Your task to perform on an android device: Search for "duracell triple a" on ebay.com, select the first entry, and add it to the cart. Image 0: 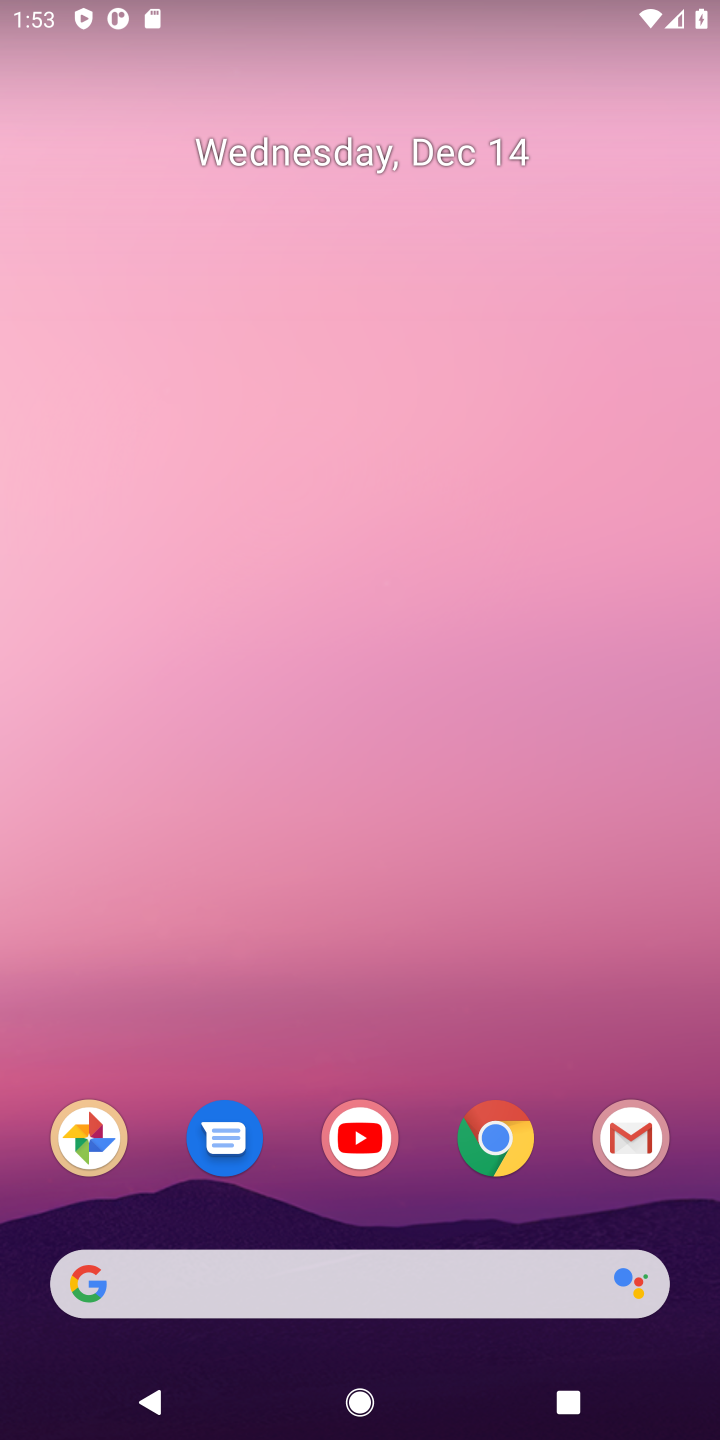
Step 0: click (481, 1134)
Your task to perform on an android device: Search for "duracell triple a" on ebay.com, select the first entry, and add it to the cart. Image 1: 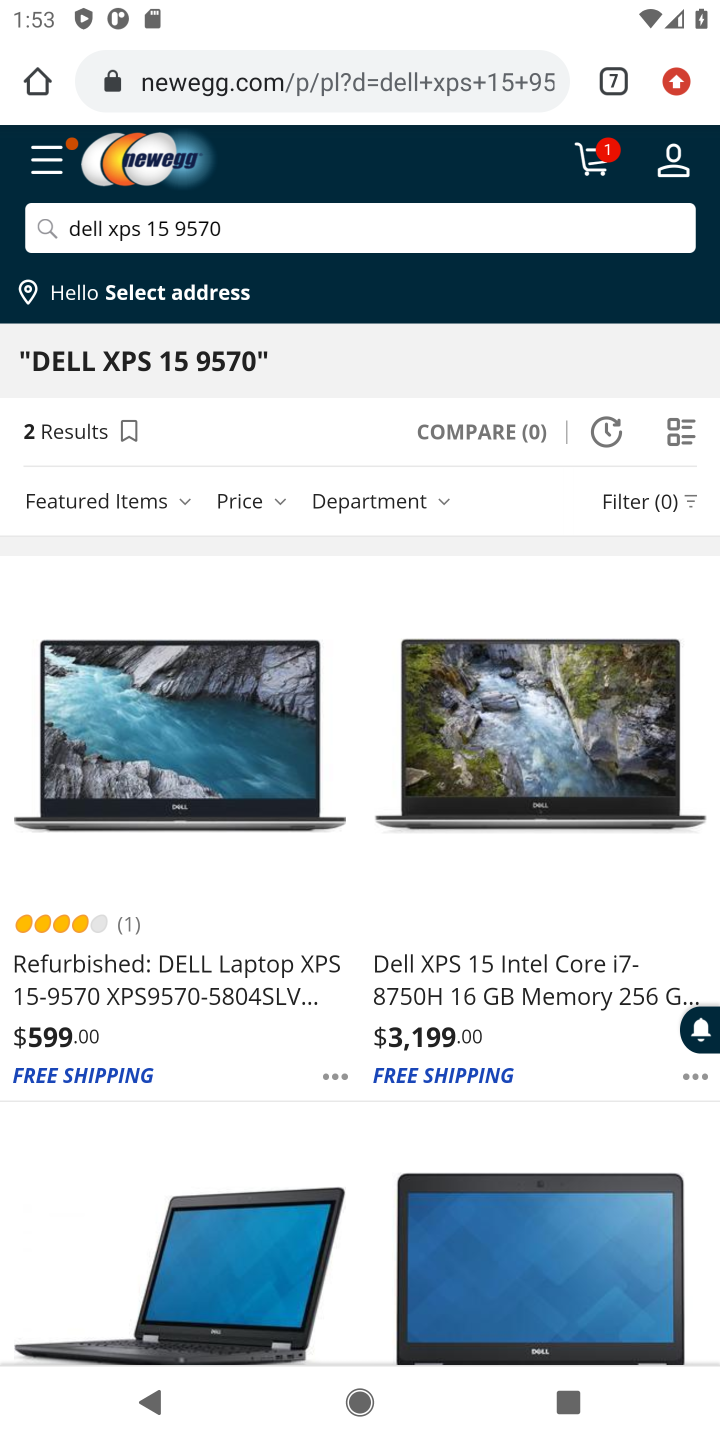
Step 1: click (600, 85)
Your task to perform on an android device: Search for "duracell triple a" on ebay.com, select the first entry, and add it to the cart. Image 2: 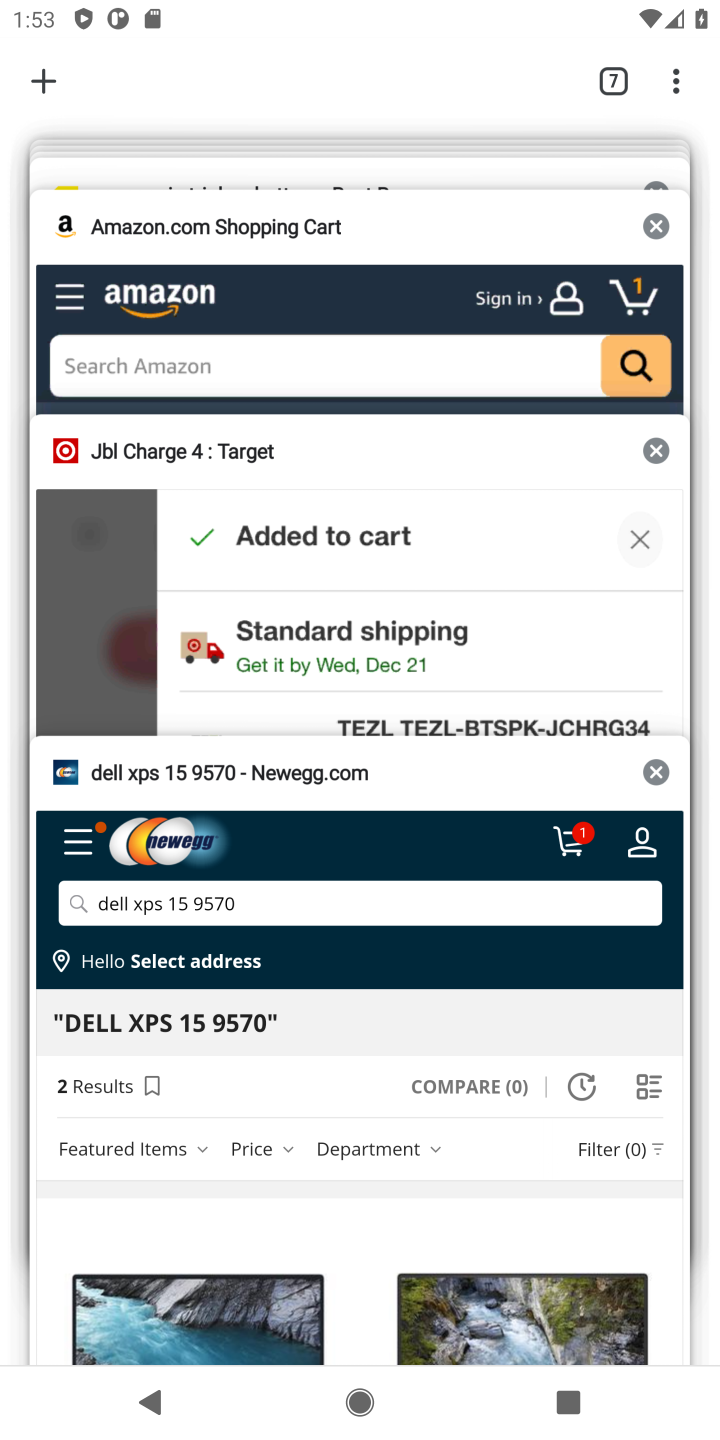
Step 2: drag from (313, 177) to (245, 588)
Your task to perform on an android device: Search for "duracell triple a" on ebay.com, select the first entry, and add it to the cart. Image 3: 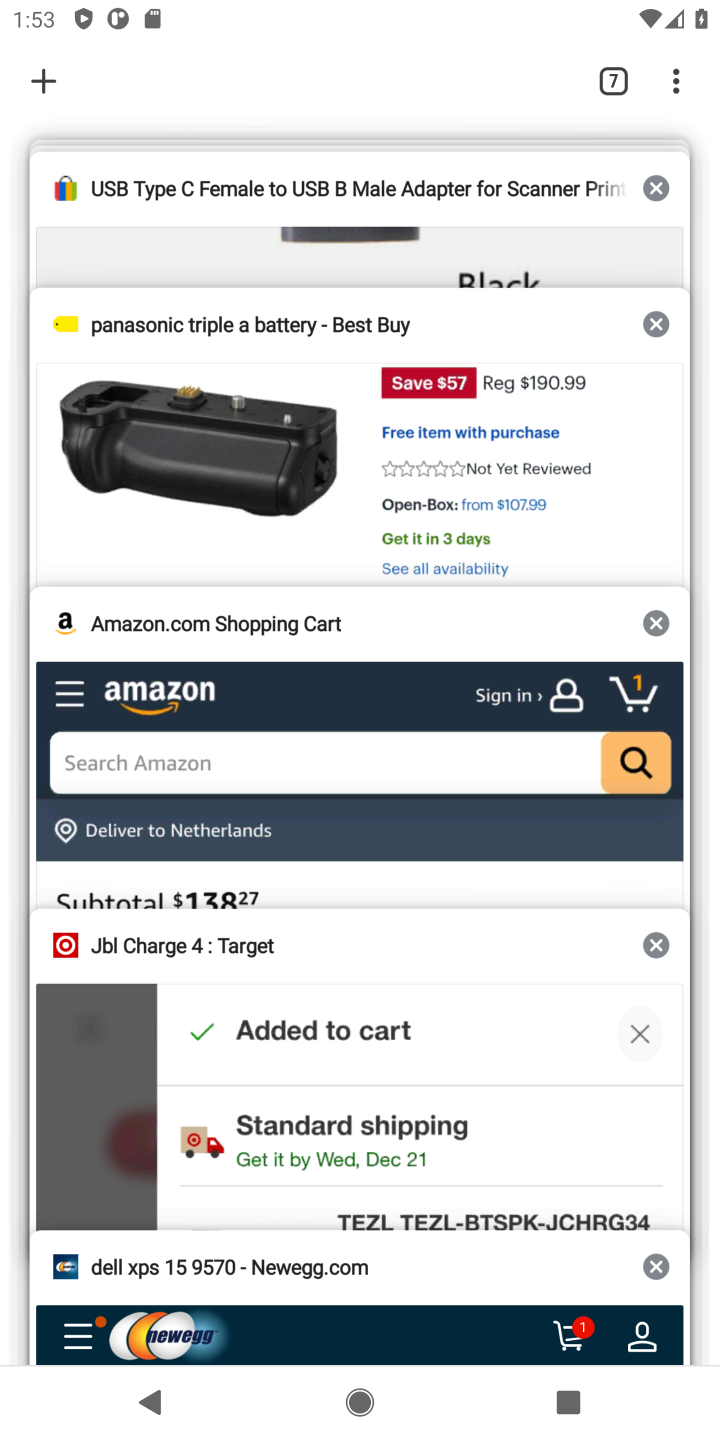
Step 3: click (230, 210)
Your task to perform on an android device: Search for "duracell triple a" on ebay.com, select the first entry, and add it to the cart. Image 4: 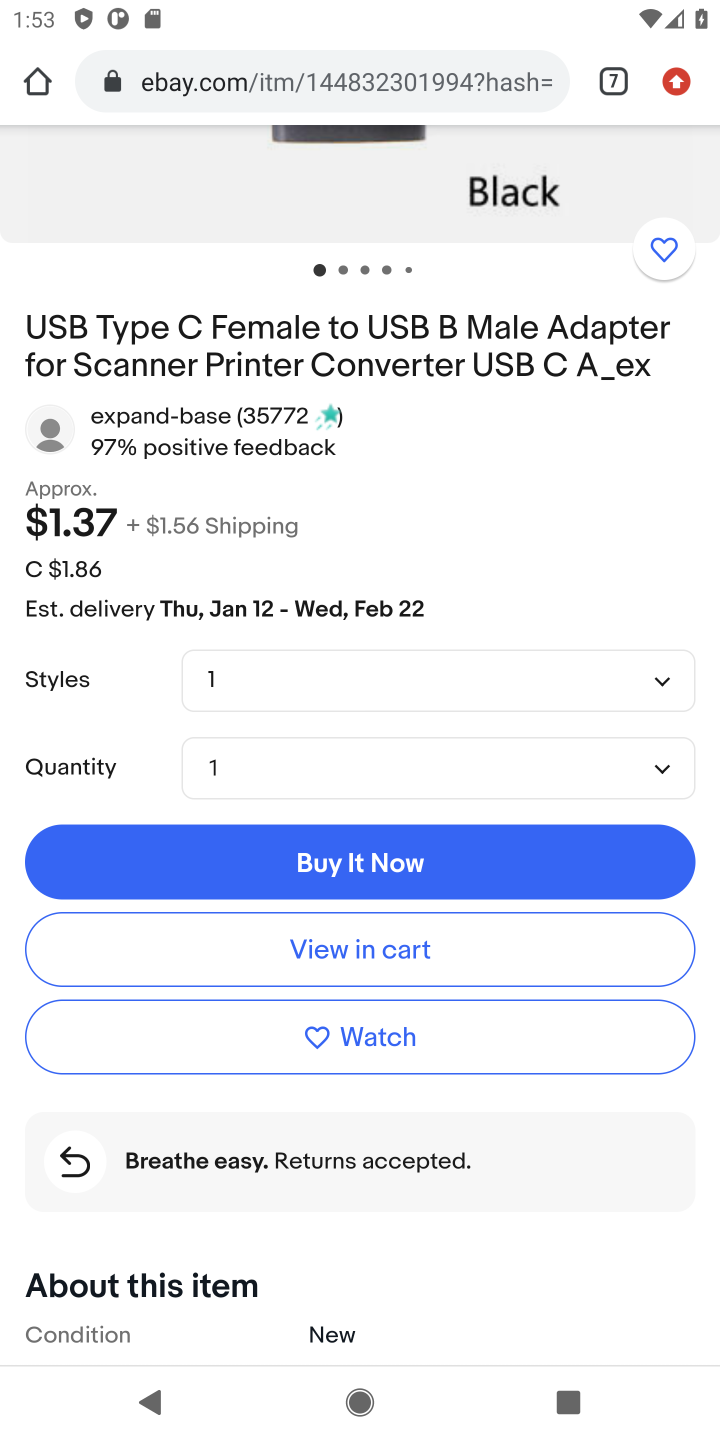
Step 4: drag from (509, 382) to (441, 1226)
Your task to perform on an android device: Search for "duracell triple a" on ebay.com, select the first entry, and add it to the cart. Image 5: 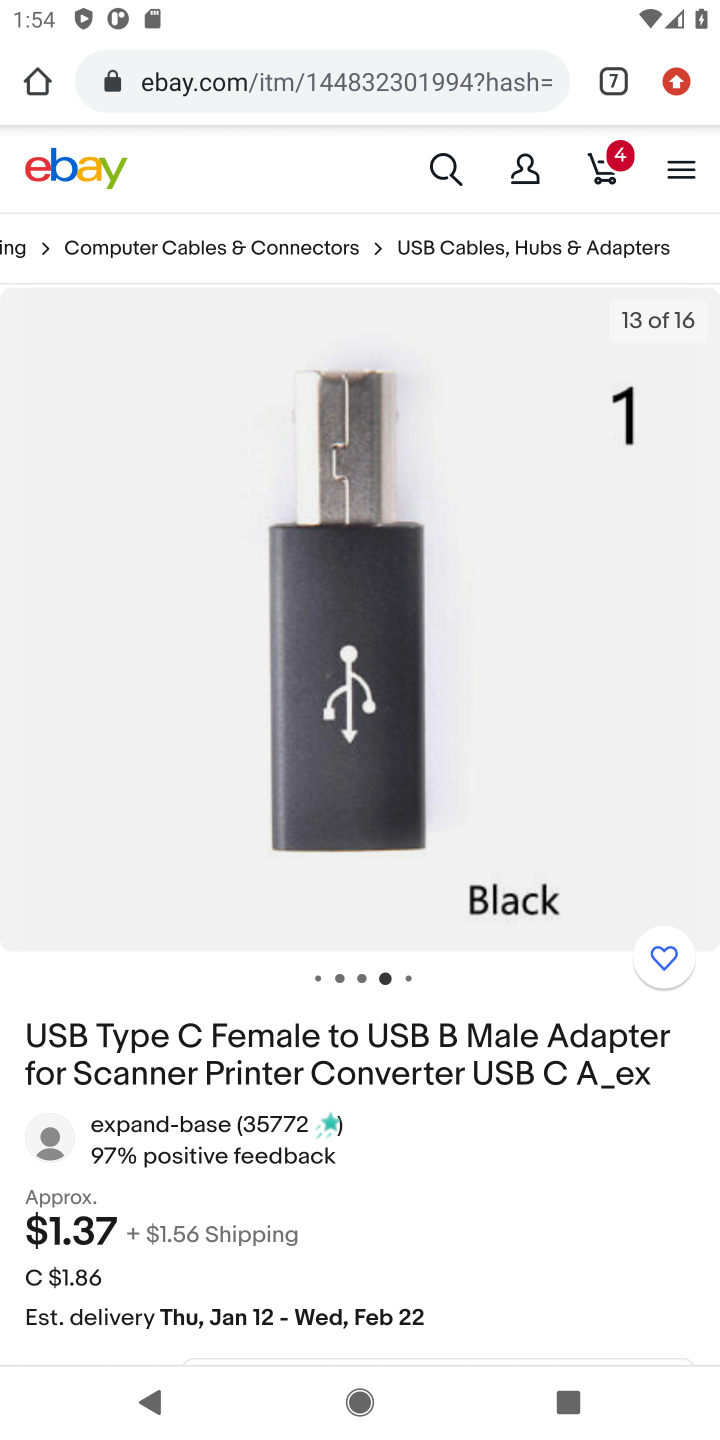
Step 5: drag from (507, 207) to (490, 654)
Your task to perform on an android device: Search for "duracell triple a" on ebay.com, select the first entry, and add it to the cart. Image 6: 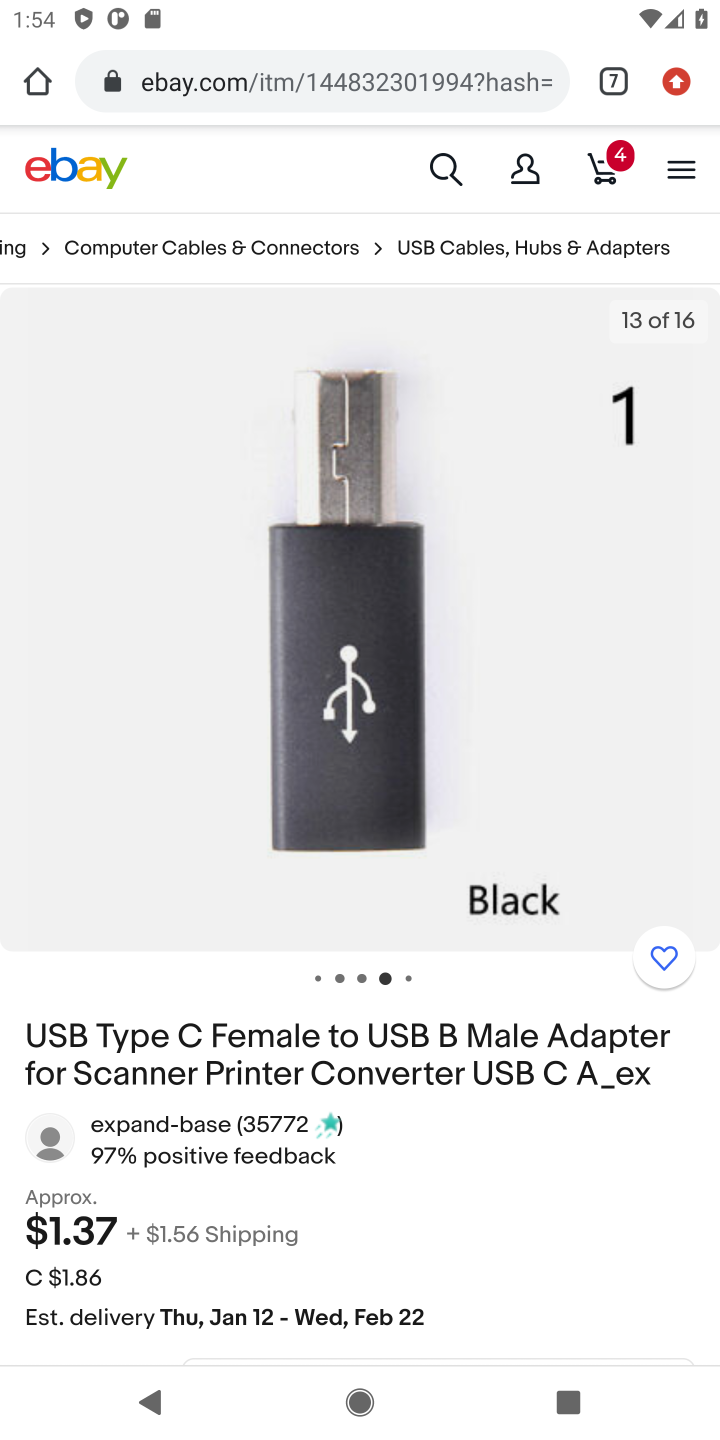
Step 6: click (448, 160)
Your task to perform on an android device: Search for "duracell triple a" on ebay.com, select the first entry, and add it to the cart. Image 7: 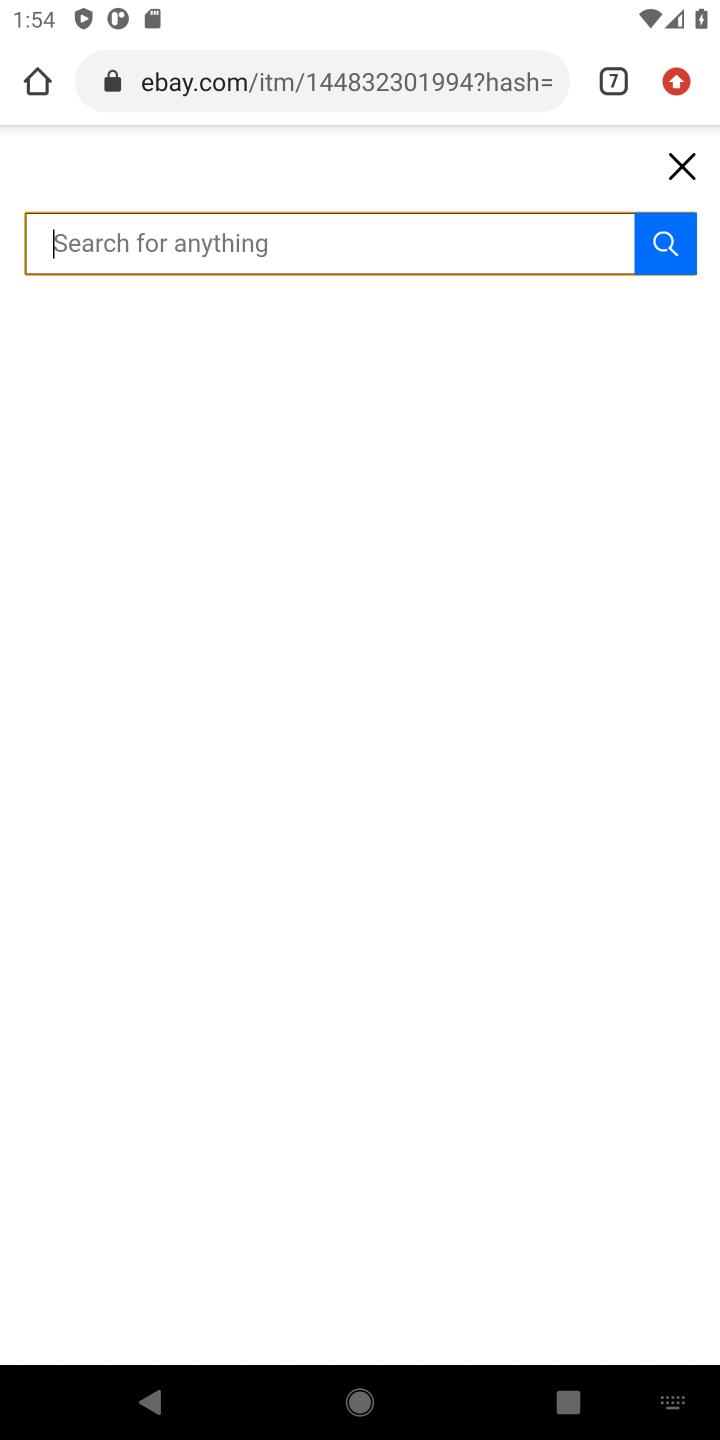
Step 7: type "duracell triple a"
Your task to perform on an android device: Search for "duracell triple a" on ebay.com, select the first entry, and add it to the cart. Image 8: 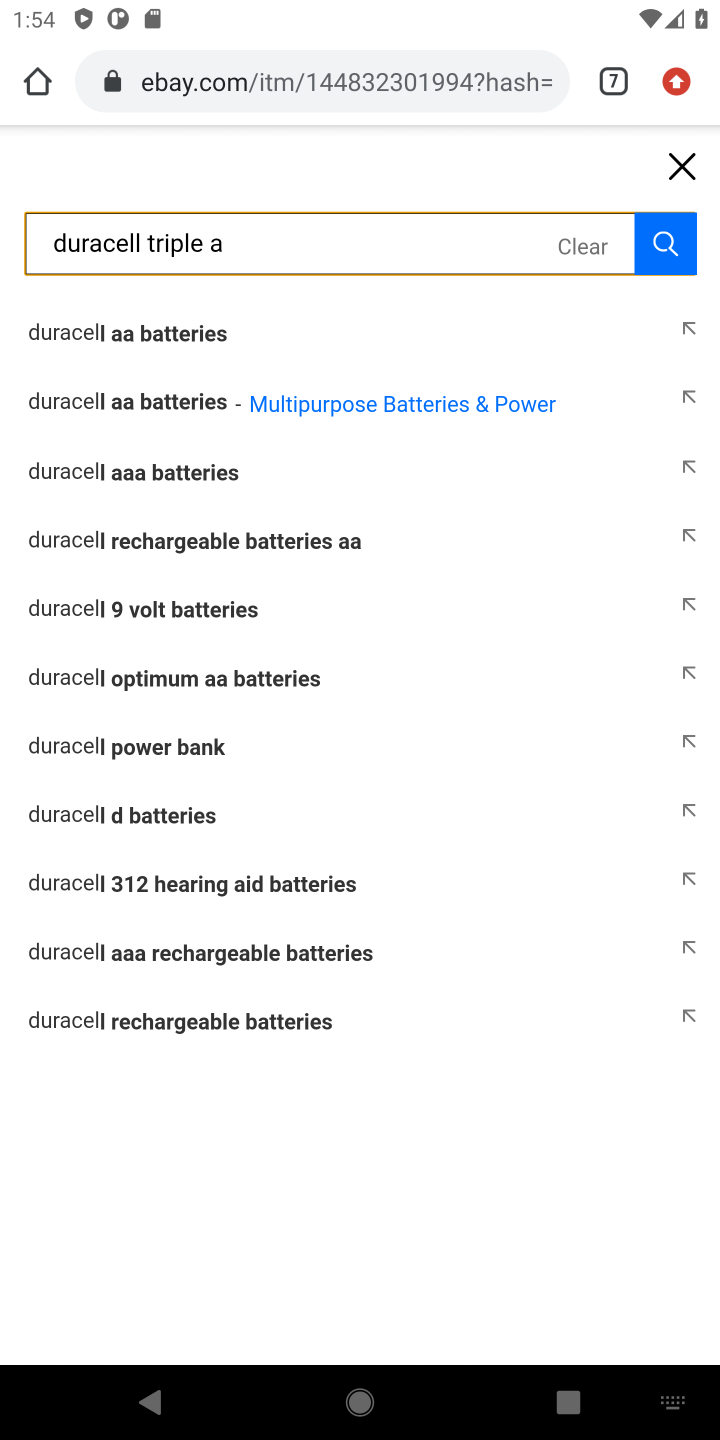
Step 8: click (154, 402)
Your task to perform on an android device: Search for "duracell triple a" on ebay.com, select the first entry, and add it to the cart. Image 9: 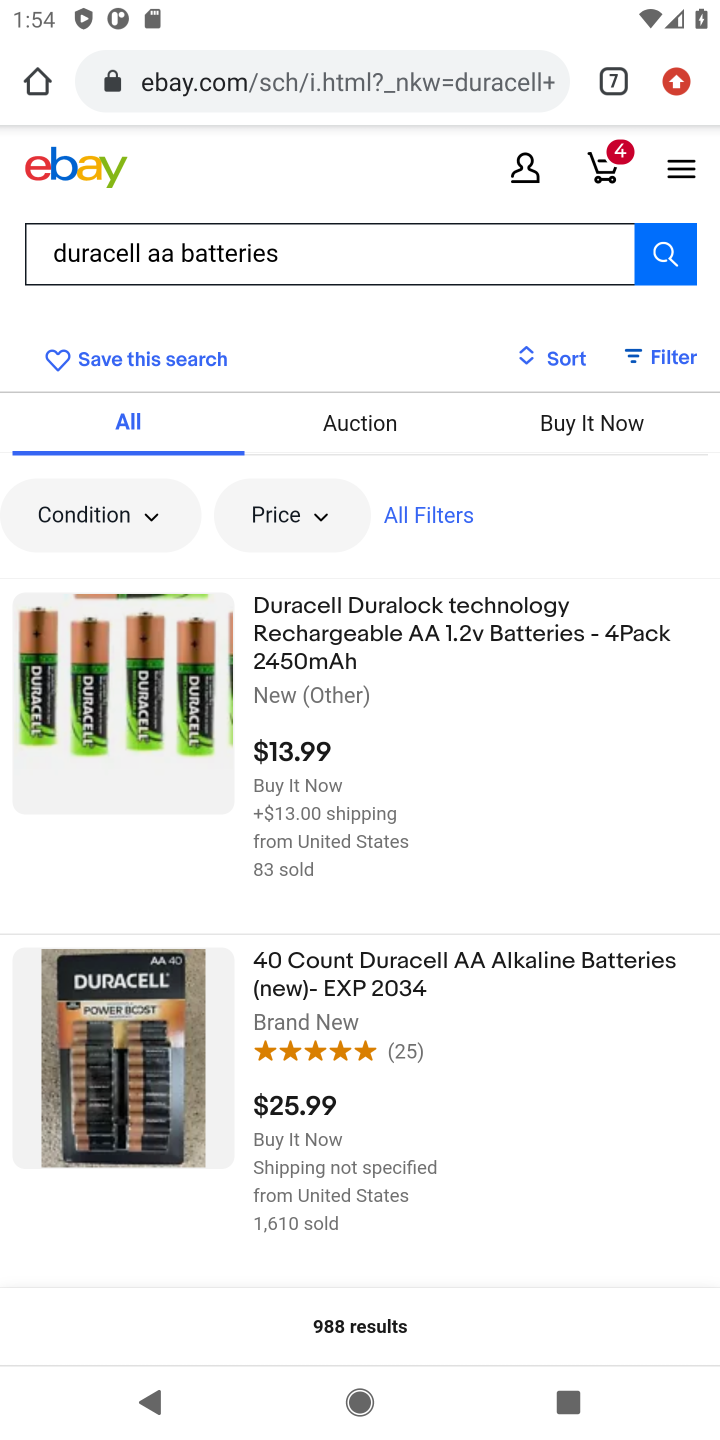
Step 9: click (416, 971)
Your task to perform on an android device: Search for "duracell triple a" on ebay.com, select the first entry, and add it to the cart. Image 10: 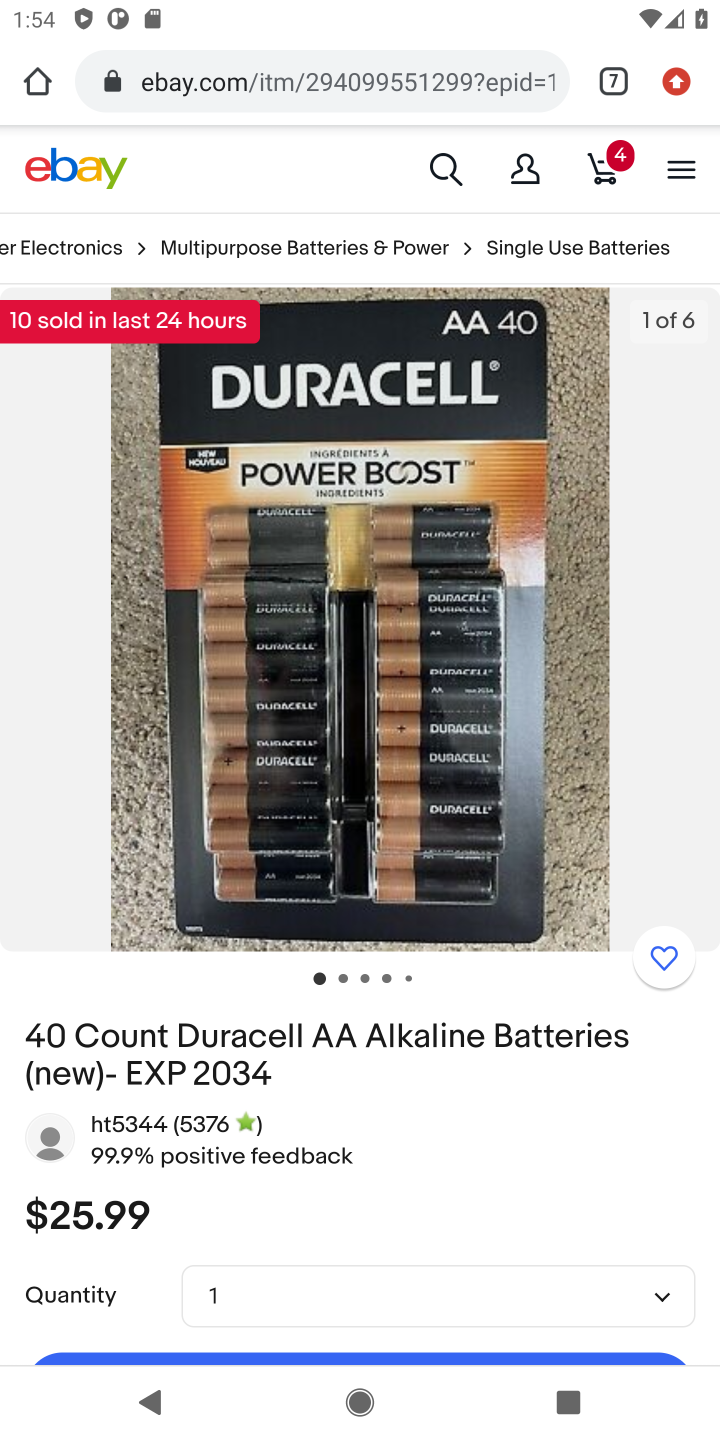
Step 10: drag from (486, 1177) to (545, 346)
Your task to perform on an android device: Search for "duracell triple a" on ebay.com, select the first entry, and add it to the cart. Image 11: 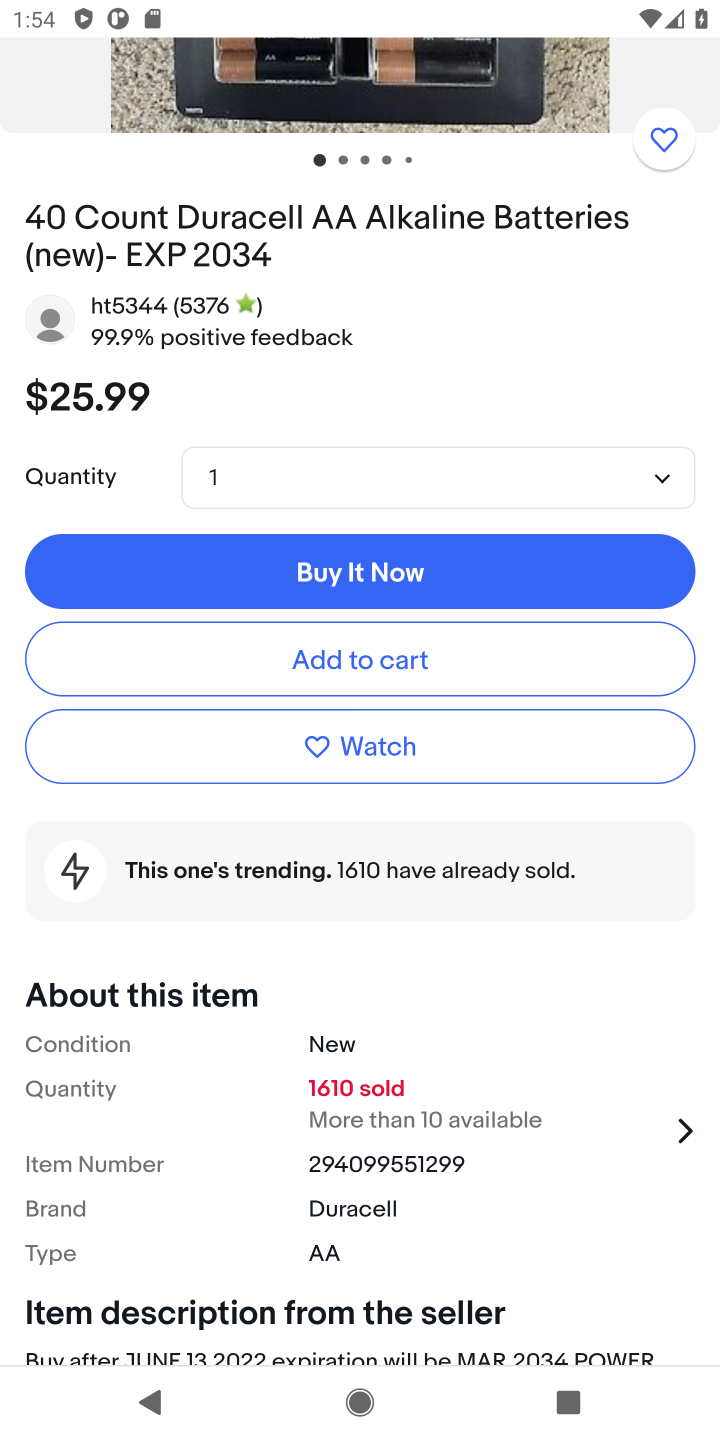
Step 11: click (418, 670)
Your task to perform on an android device: Search for "duracell triple a" on ebay.com, select the first entry, and add it to the cart. Image 12: 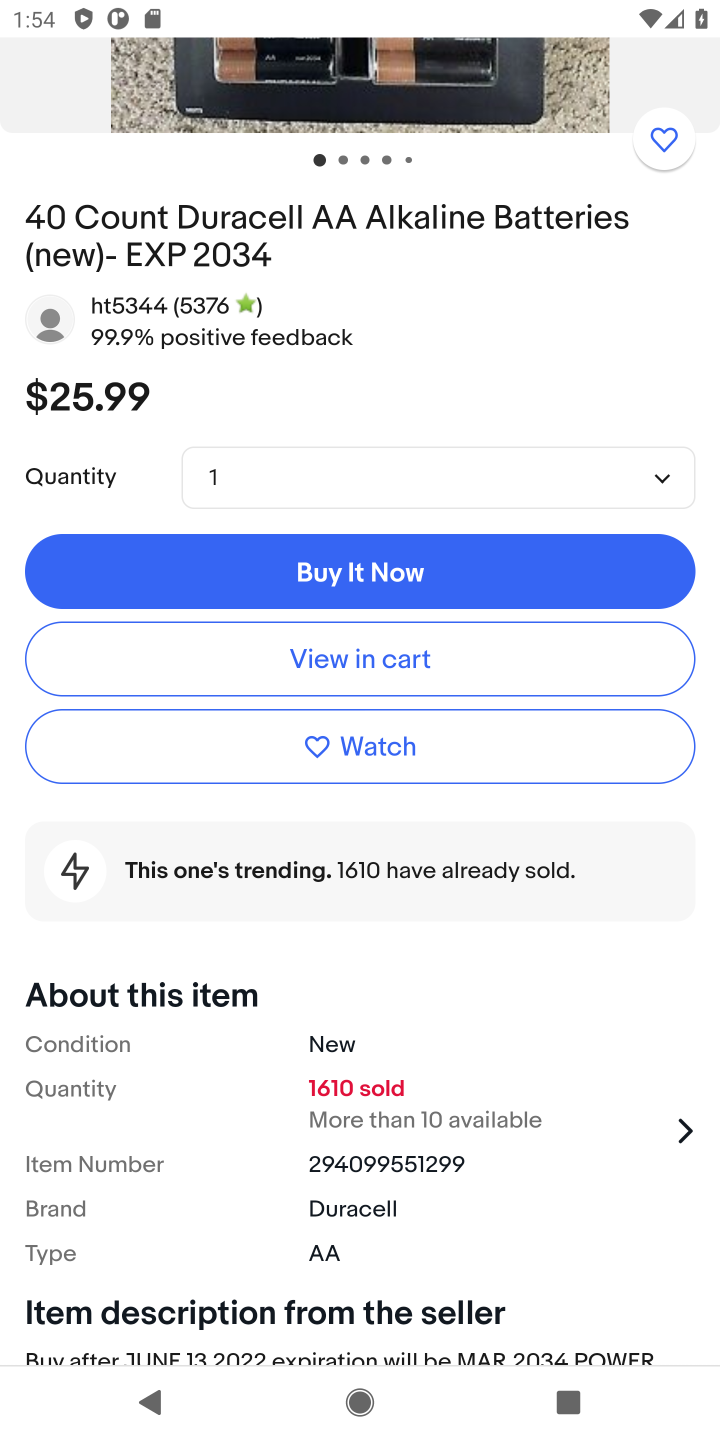
Step 12: task complete